Your task to perform on an android device: Go to notification settings Image 0: 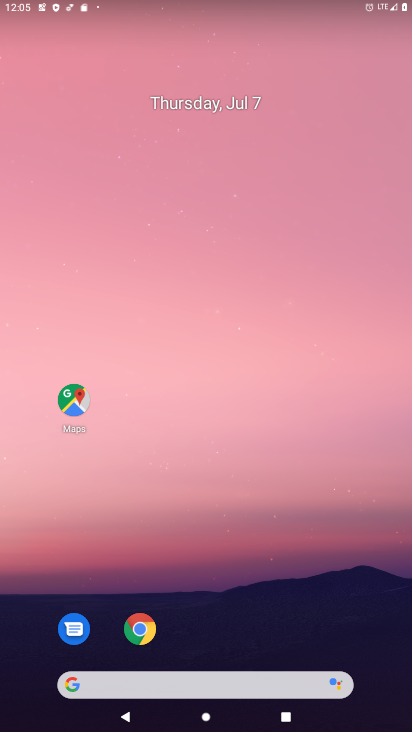
Step 0: drag from (274, 619) to (280, 183)
Your task to perform on an android device: Go to notification settings Image 1: 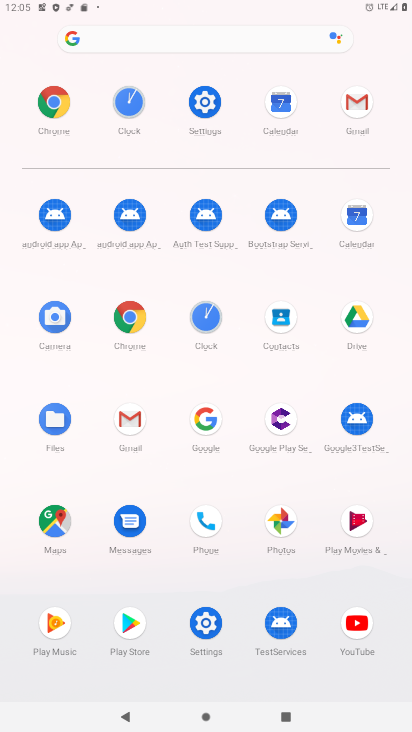
Step 1: click (205, 101)
Your task to perform on an android device: Go to notification settings Image 2: 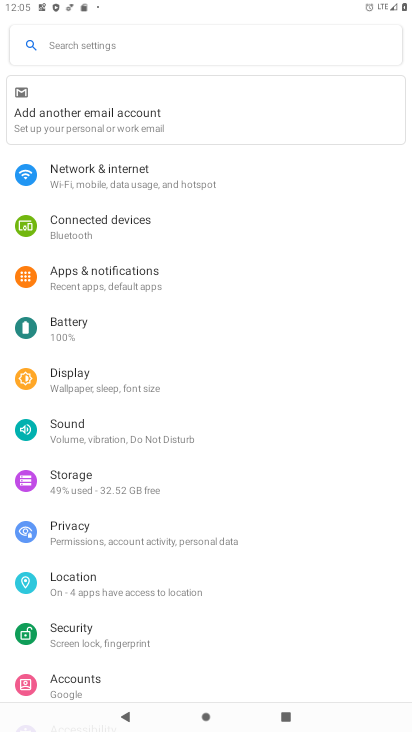
Step 2: click (97, 277)
Your task to perform on an android device: Go to notification settings Image 3: 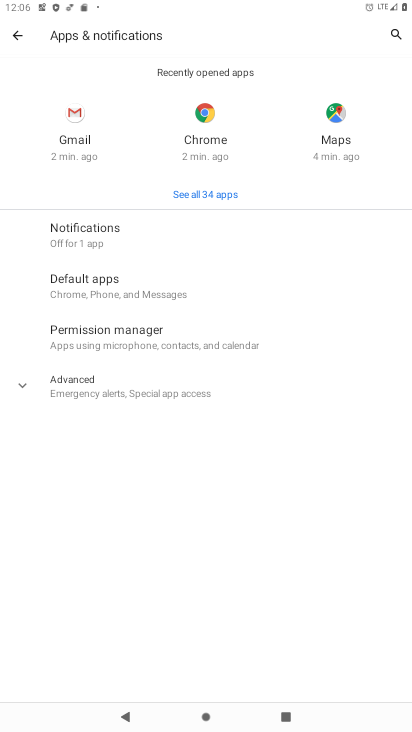
Step 3: click (111, 222)
Your task to perform on an android device: Go to notification settings Image 4: 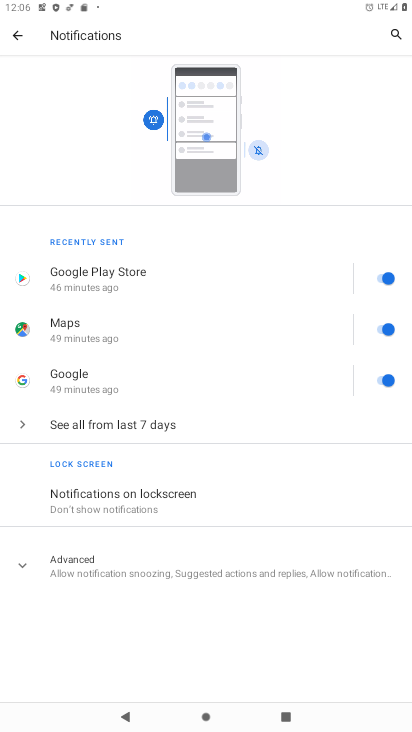
Step 4: task complete